Your task to perform on an android device: turn on showing notifications on the lock screen Image 0: 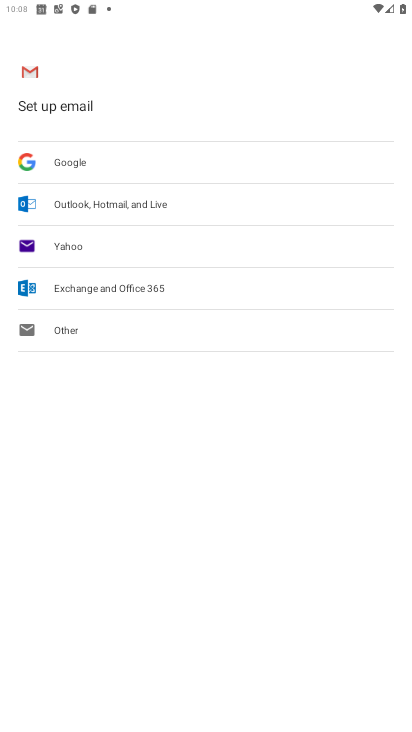
Step 0: press home button
Your task to perform on an android device: turn on showing notifications on the lock screen Image 1: 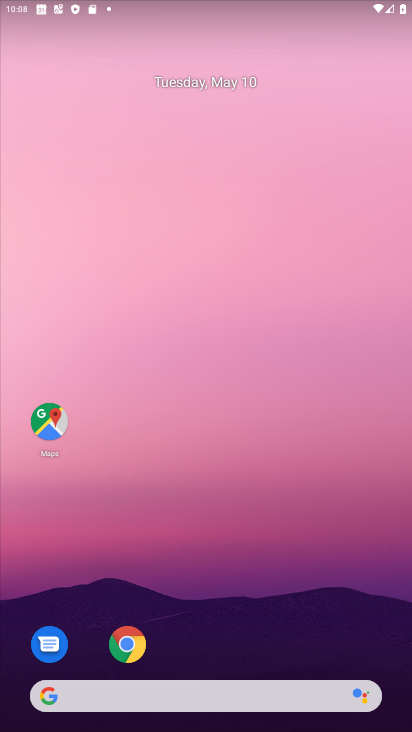
Step 1: drag from (229, 633) to (180, 18)
Your task to perform on an android device: turn on showing notifications on the lock screen Image 2: 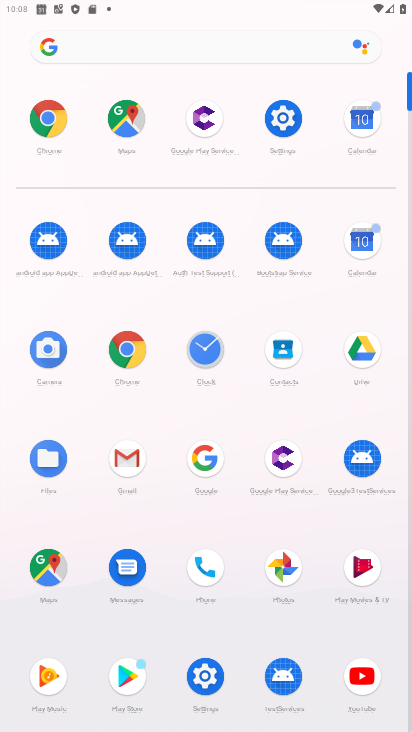
Step 2: click (269, 146)
Your task to perform on an android device: turn on showing notifications on the lock screen Image 3: 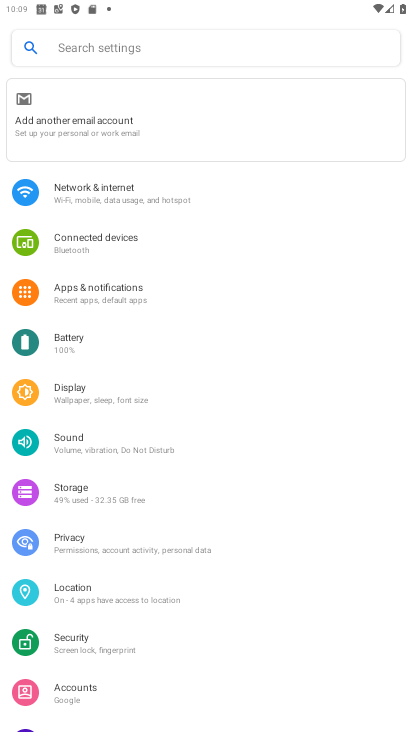
Step 3: click (150, 288)
Your task to perform on an android device: turn on showing notifications on the lock screen Image 4: 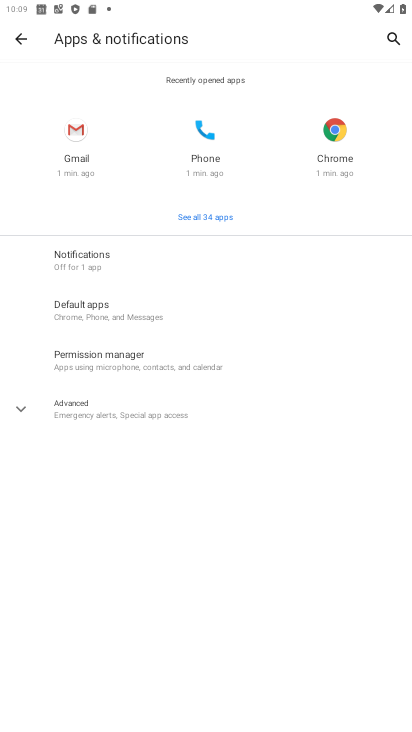
Step 4: click (145, 253)
Your task to perform on an android device: turn on showing notifications on the lock screen Image 5: 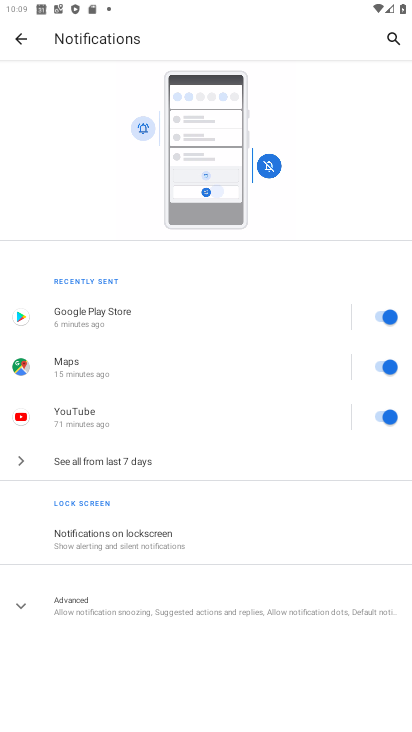
Step 5: drag from (215, 417) to (248, 223)
Your task to perform on an android device: turn on showing notifications on the lock screen Image 6: 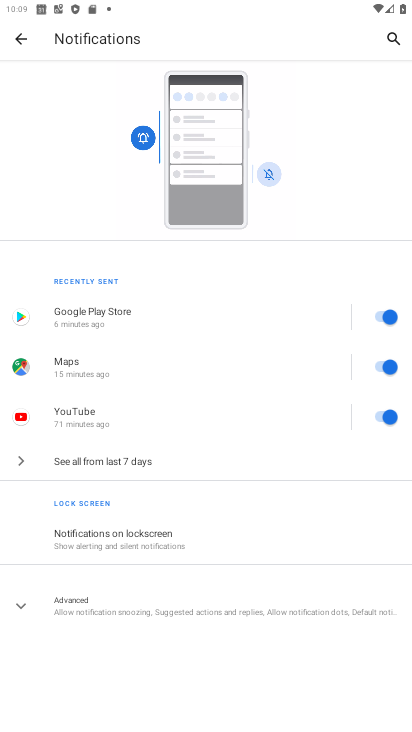
Step 6: drag from (227, 431) to (265, 137)
Your task to perform on an android device: turn on showing notifications on the lock screen Image 7: 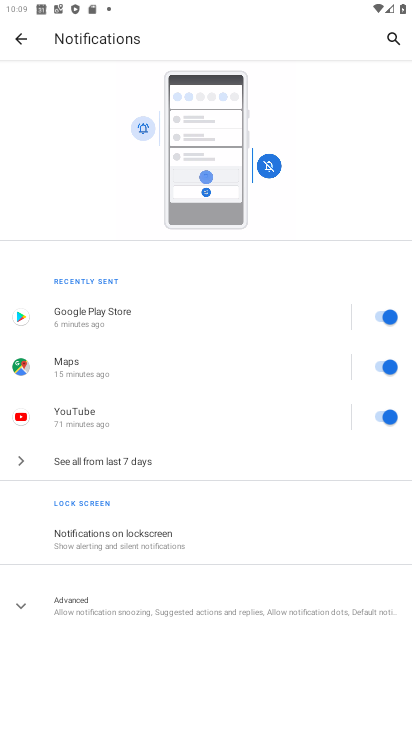
Step 7: click (172, 543)
Your task to perform on an android device: turn on showing notifications on the lock screen Image 8: 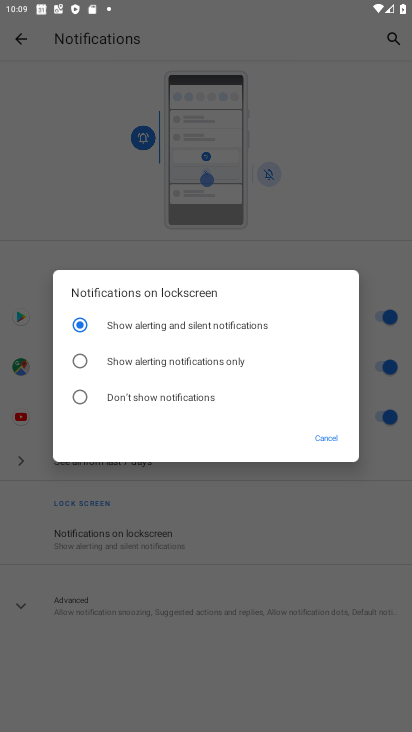
Step 8: task complete